Your task to perform on an android device: Go to sound settings Image 0: 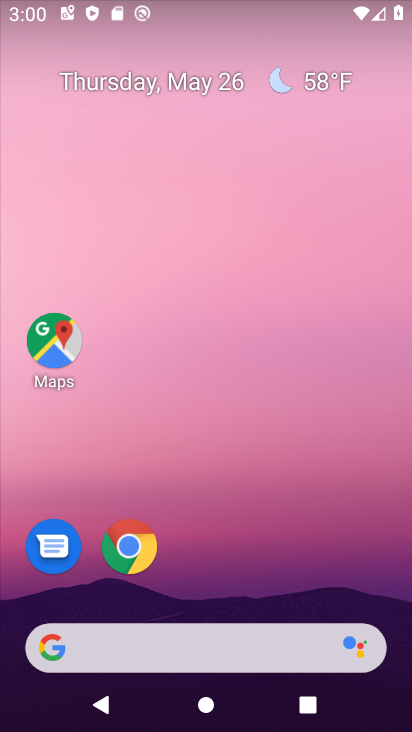
Step 0: press home button
Your task to perform on an android device: Go to sound settings Image 1: 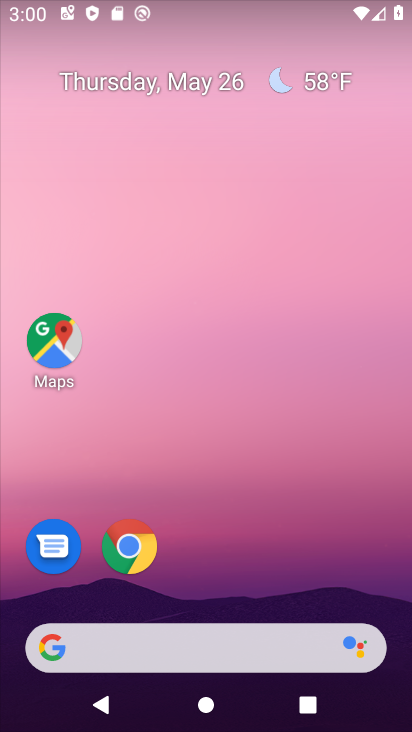
Step 1: drag from (201, 564) to (264, 98)
Your task to perform on an android device: Go to sound settings Image 2: 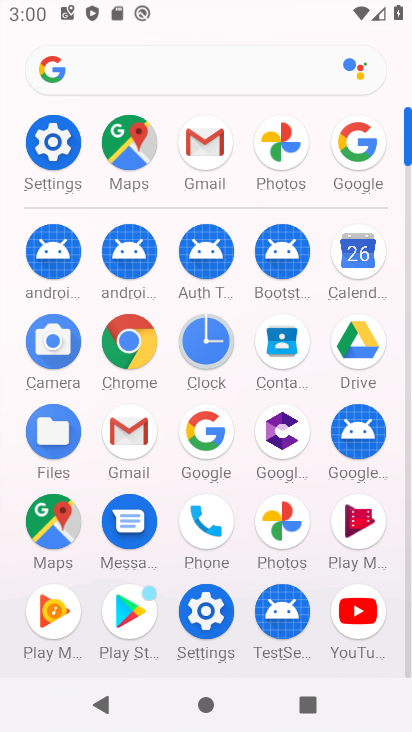
Step 2: click (206, 607)
Your task to perform on an android device: Go to sound settings Image 3: 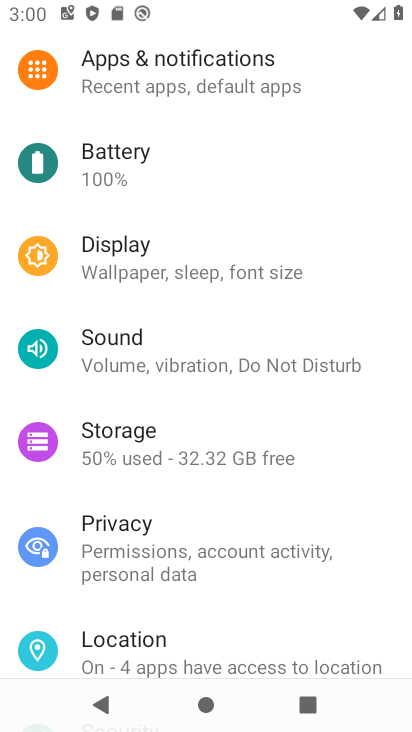
Step 3: drag from (171, 618) to (182, 463)
Your task to perform on an android device: Go to sound settings Image 4: 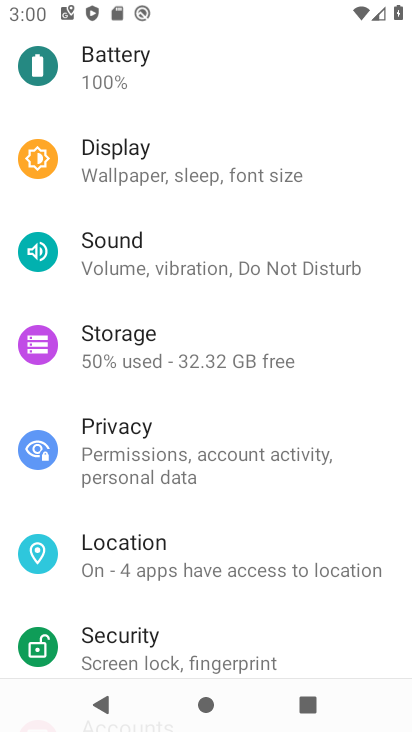
Step 4: click (174, 245)
Your task to perform on an android device: Go to sound settings Image 5: 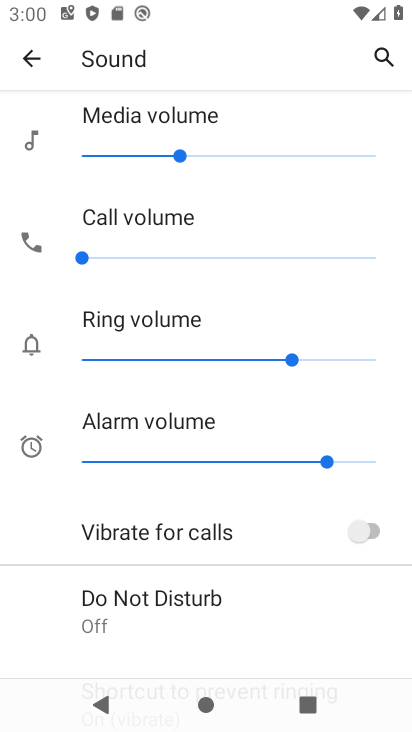
Step 5: drag from (220, 603) to (263, 153)
Your task to perform on an android device: Go to sound settings Image 6: 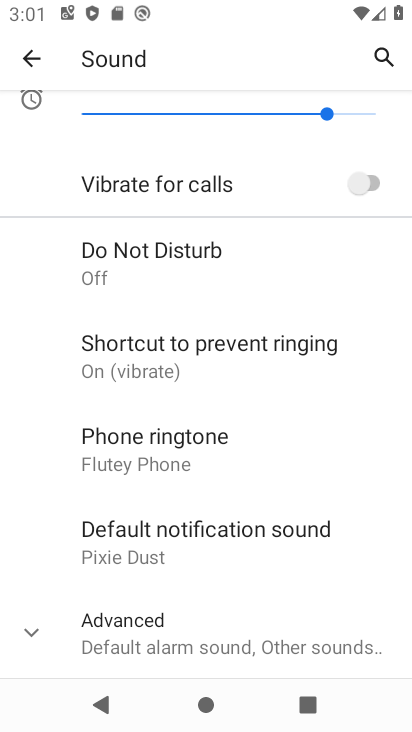
Step 6: click (122, 628)
Your task to perform on an android device: Go to sound settings Image 7: 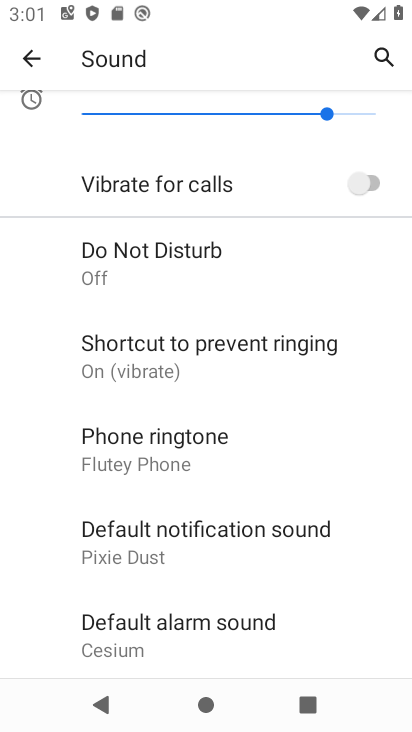
Step 7: task complete